Your task to perform on an android device: turn on translation in the chrome app Image 0: 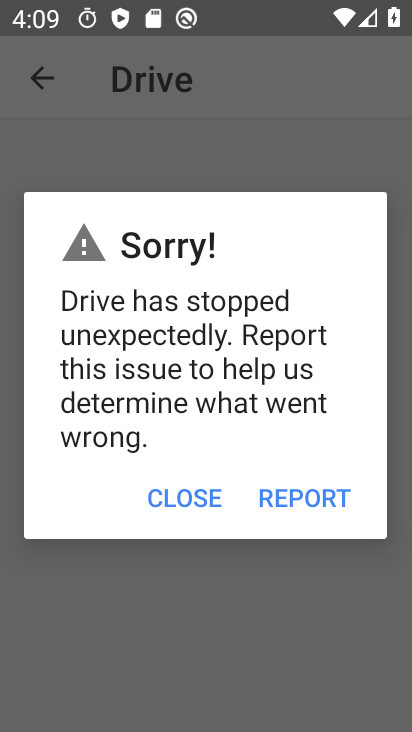
Step 0: click (178, 502)
Your task to perform on an android device: turn on translation in the chrome app Image 1: 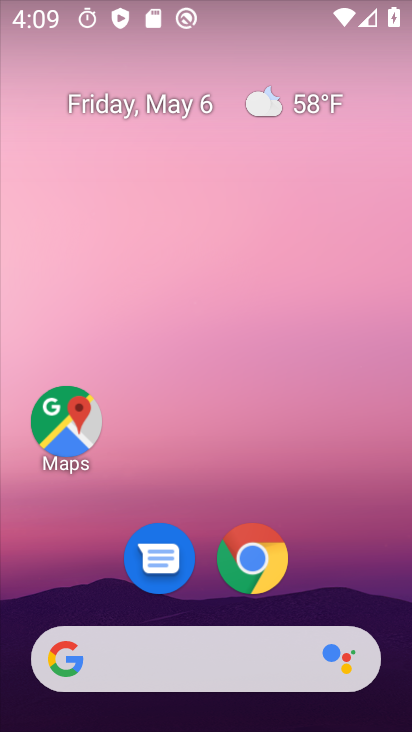
Step 1: drag from (252, 633) to (253, 111)
Your task to perform on an android device: turn on translation in the chrome app Image 2: 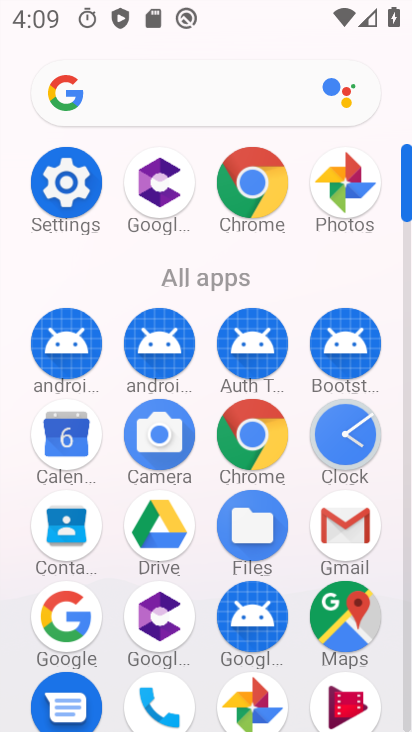
Step 2: click (258, 446)
Your task to perform on an android device: turn on translation in the chrome app Image 3: 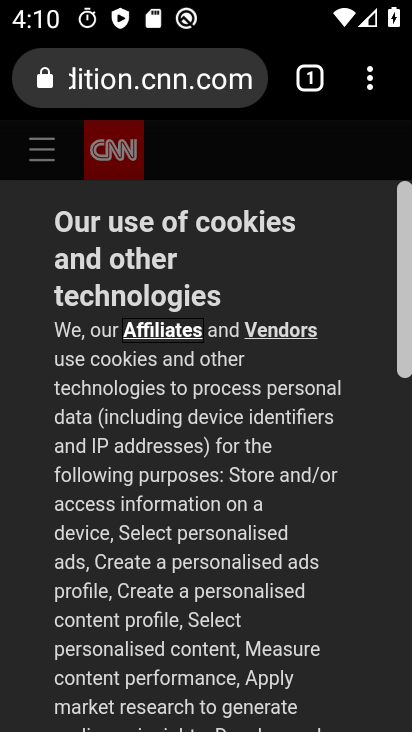
Step 3: drag from (372, 72) to (165, 623)
Your task to perform on an android device: turn on translation in the chrome app Image 4: 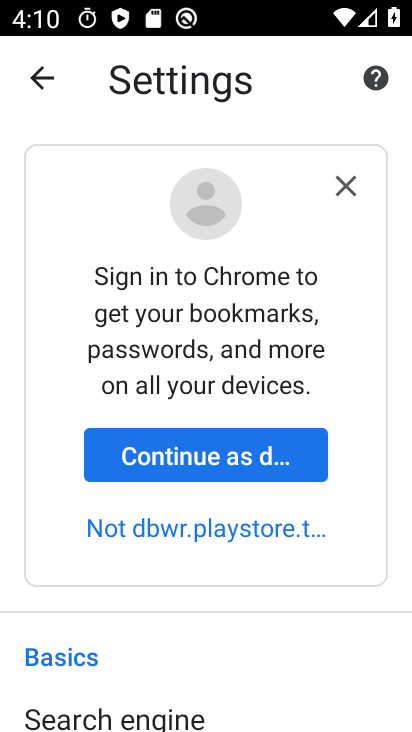
Step 4: drag from (266, 679) to (202, 142)
Your task to perform on an android device: turn on translation in the chrome app Image 5: 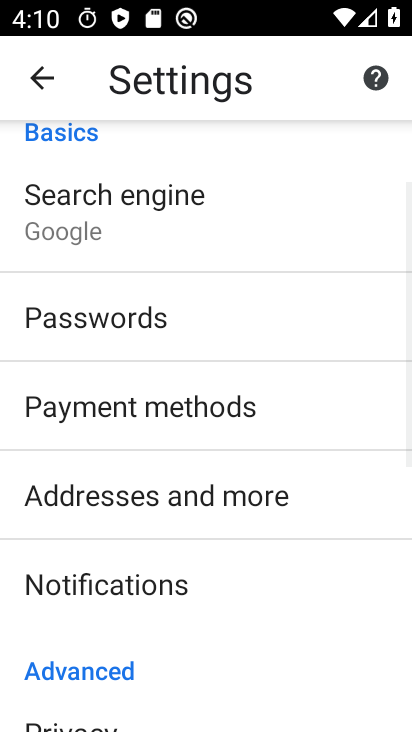
Step 5: drag from (227, 670) to (204, 218)
Your task to perform on an android device: turn on translation in the chrome app Image 6: 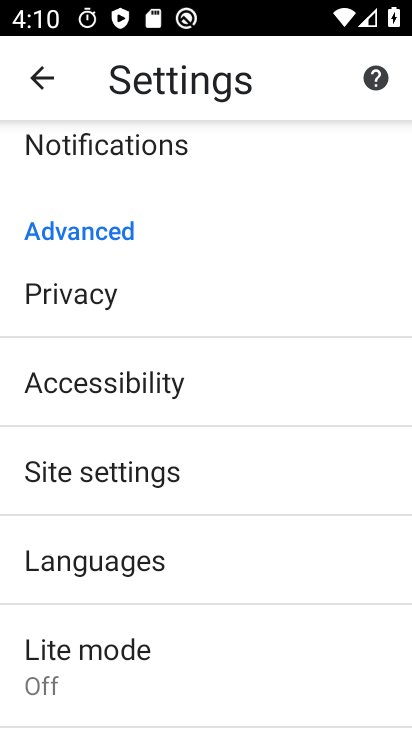
Step 6: click (133, 557)
Your task to perform on an android device: turn on translation in the chrome app Image 7: 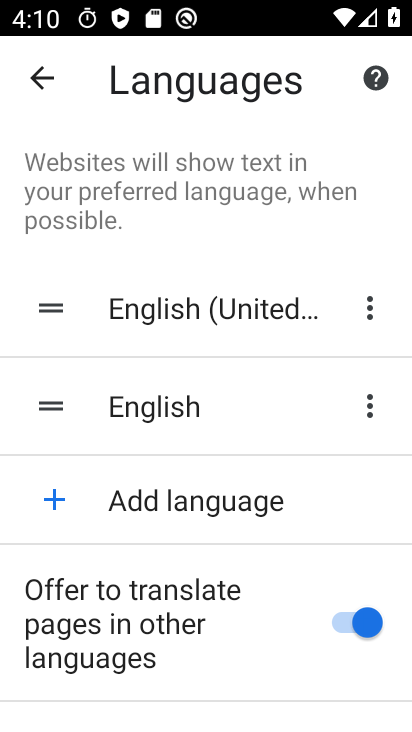
Step 7: task complete